Your task to perform on an android device: See recent photos Image 0: 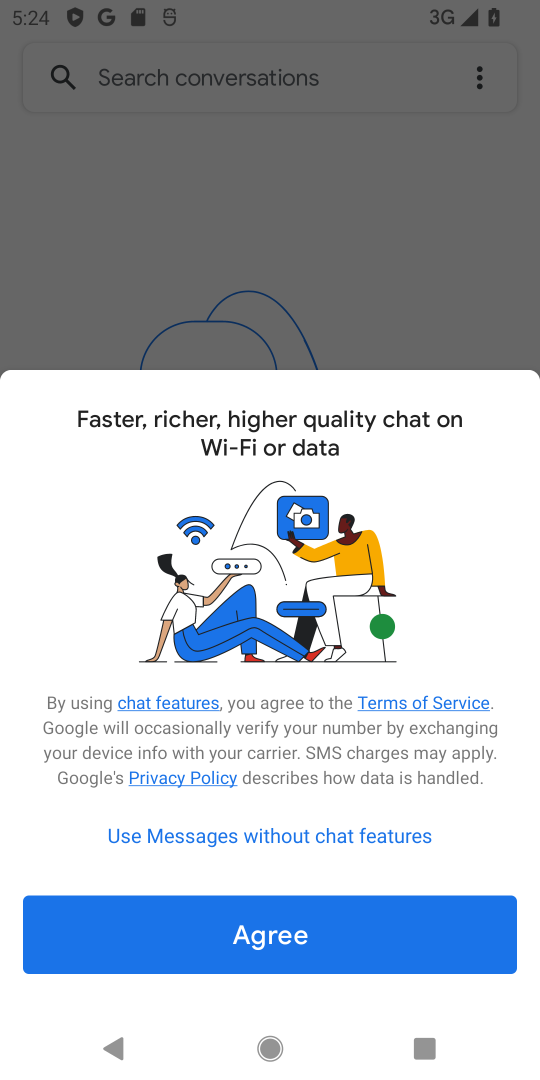
Step 0: press home button
Your task to perform on an android device: See recent photos Image 1: 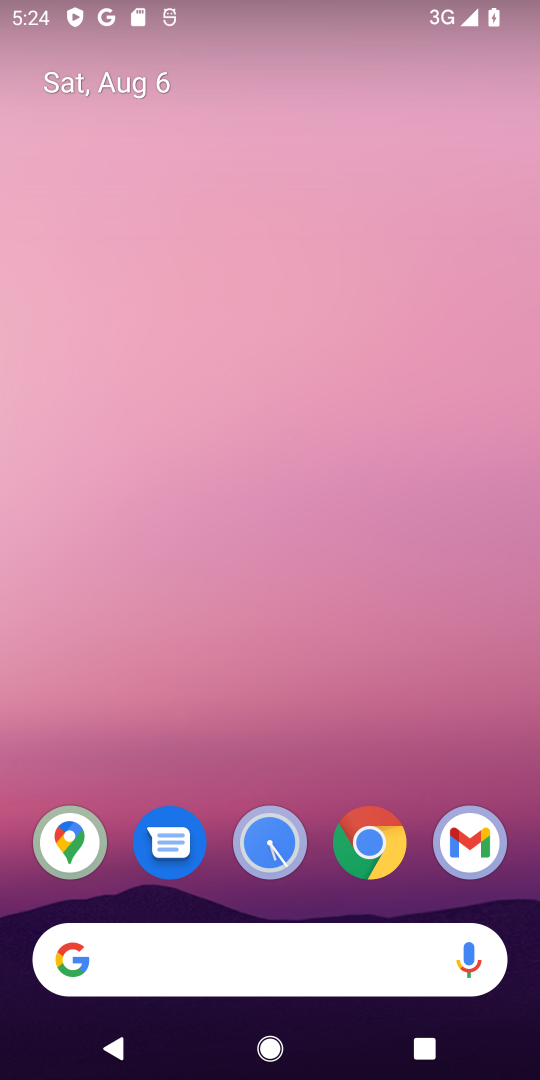
Step 1: task complete